Your task to perform on an android device: check google app version Image 0: 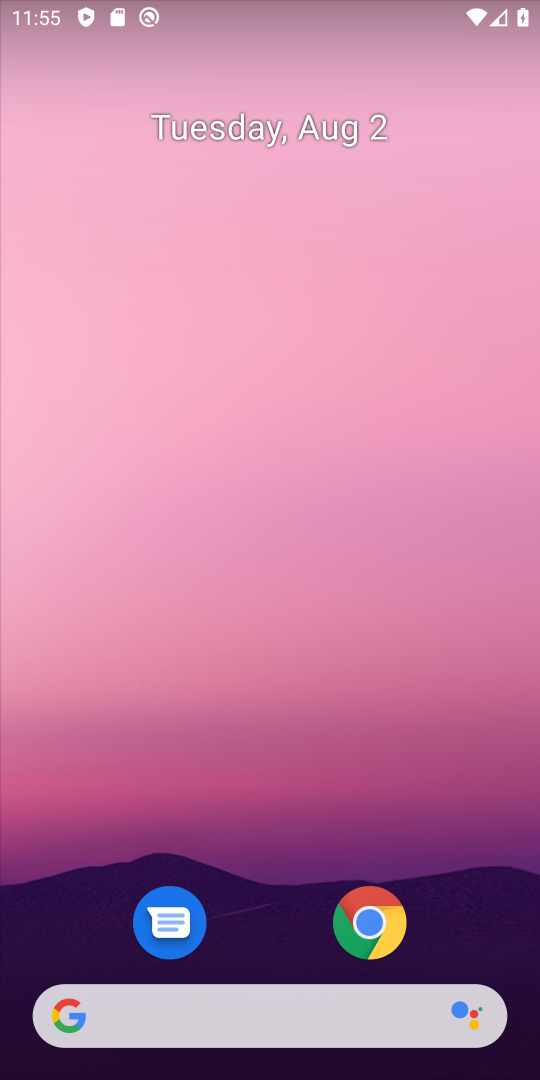
Step 0: drag from (479, 930) to (337, 174)
Your task to perform on an android device: check google app version Image 1: 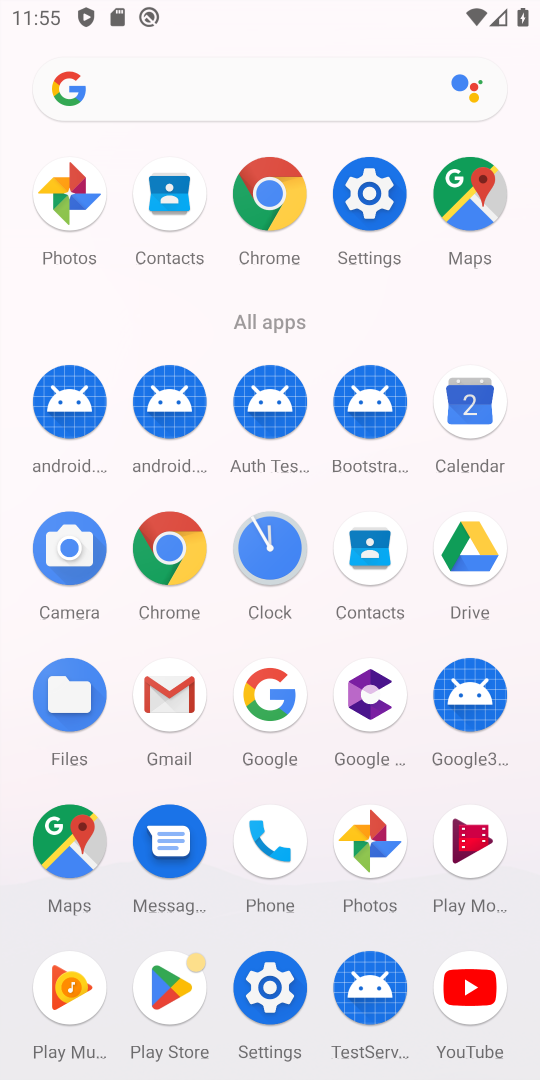
Step 1: click (277, 202)
Your task to perform on an android device: check google app version Image 2: 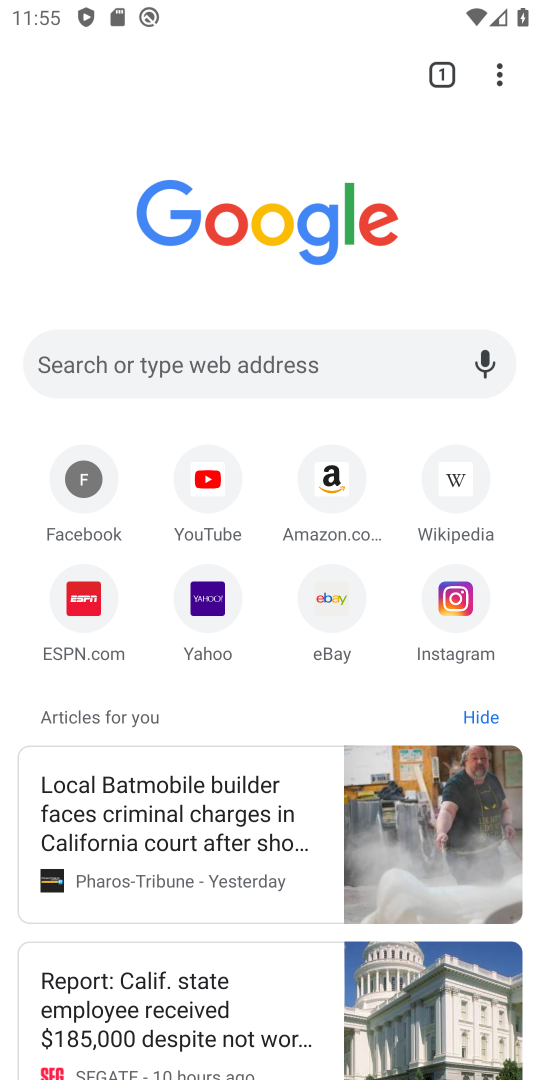
Step 2: click (493, 89)
Your task to perform on an android device: check google app version Image 3: 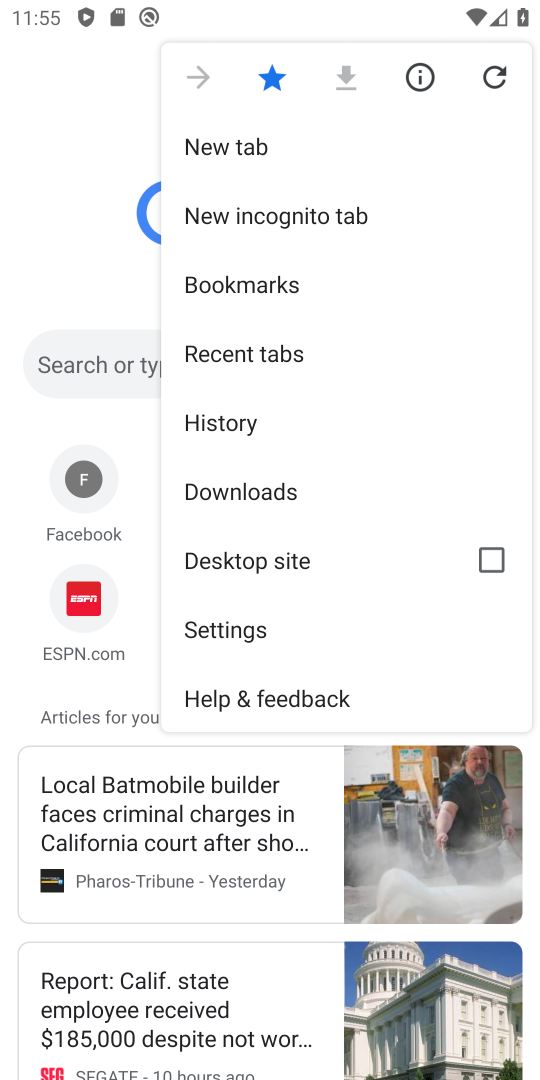
Step 3: click (317, 714)
Your task to perform on an android device: check google app version Image 4: 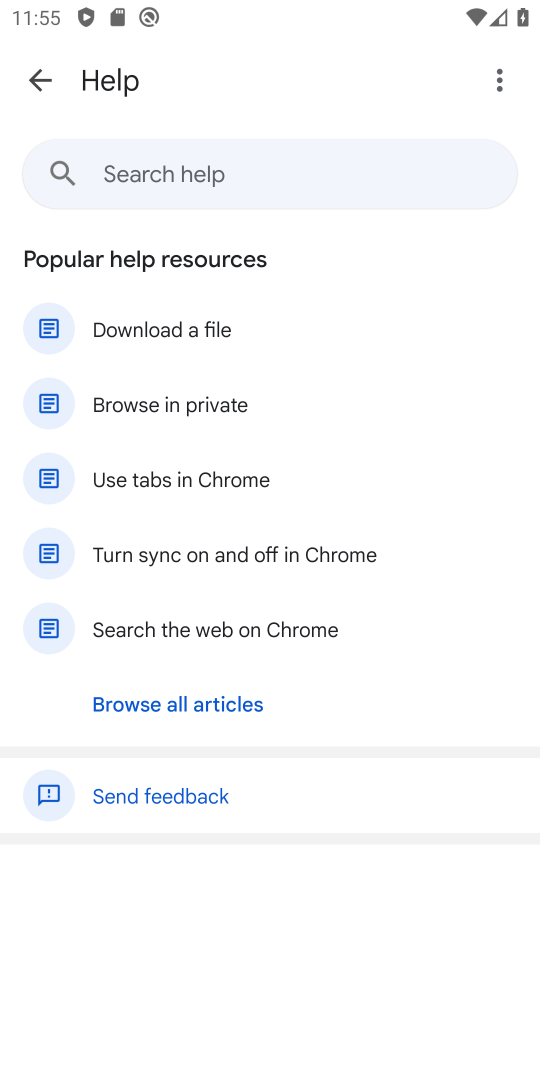
Step 4: click (503, 81)
Your task to perform on an android device: check google app version Image 5: 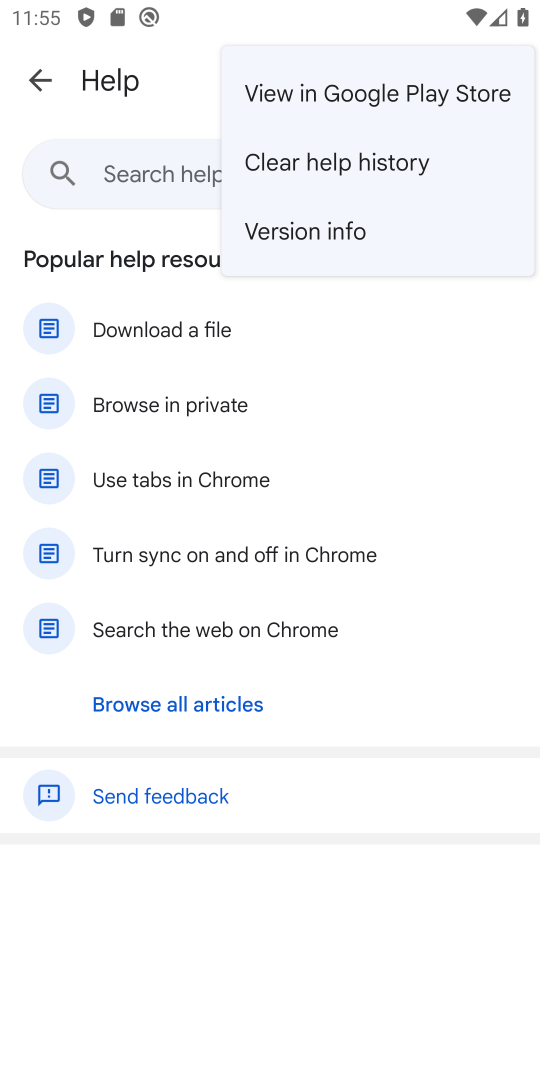
Step 5: click (404, 239)
Your task to perform on an android device: check google app version Image 6: 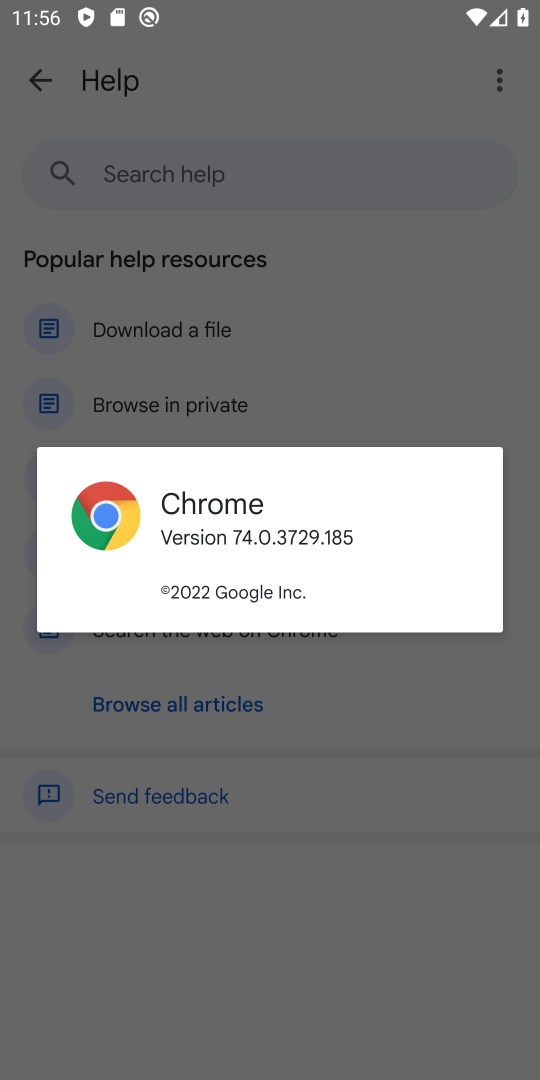
Step 6: task complete